Your task to perform on an android device: Open Chrome and go to the settings page Image 0: 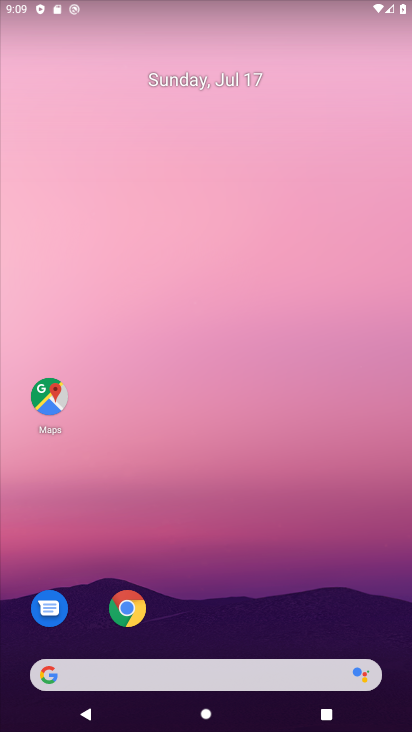
Step 0: drag from (178, 642) to (268, 162)
Your task to perform on an android device: Open Chrome and go to the settings page Image 1: 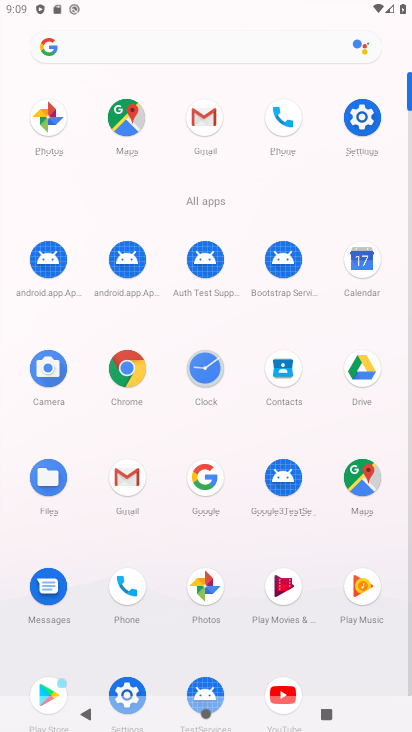
Step 1: click (138, 355)
Your task to perform on an android device: Open Chrome and go to the settings page Image 2: 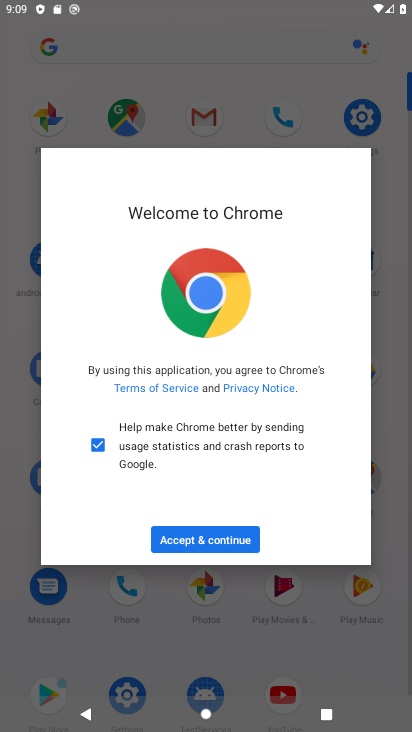
Step 2: click (229, 548)
Your task to perform on an android device: Open Chrome and go to the settings page Image 3: 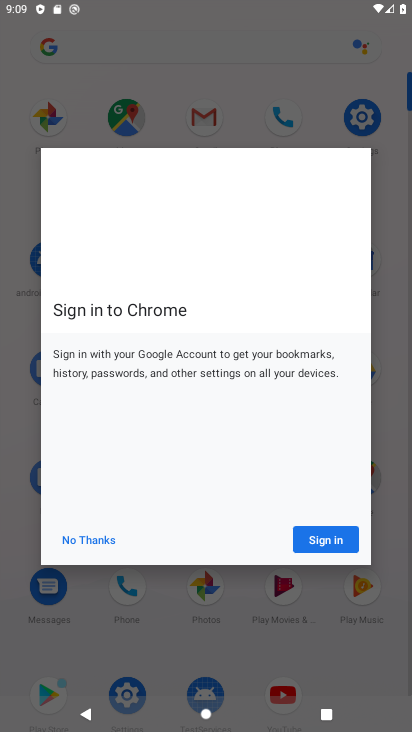
Step 3: click (333, 538)
Your task to perform on an android device: Open Chrome and go to the settings page Image 4: 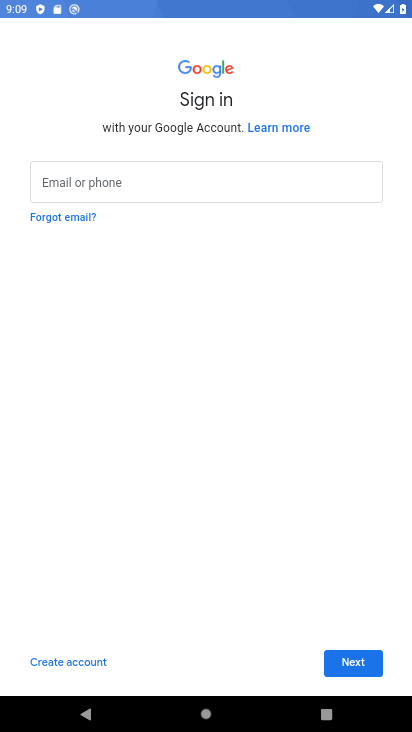
Step 4: task complete